Your task to perform on an android device: Add asus zenbook to the cart on ebay Image 0: 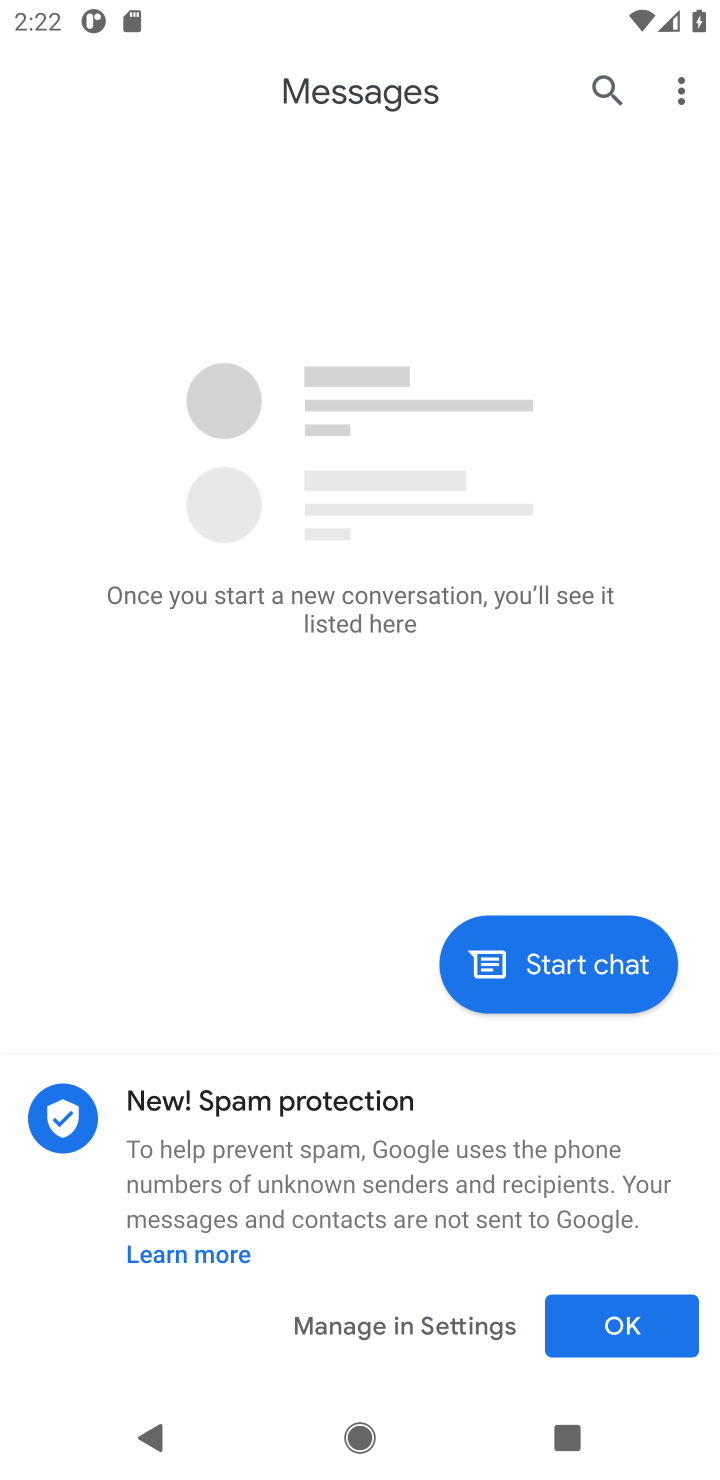
Step 0: press home button
Your task to perform on an android device: Add asus zenbook to the cart on ebay Image 1: 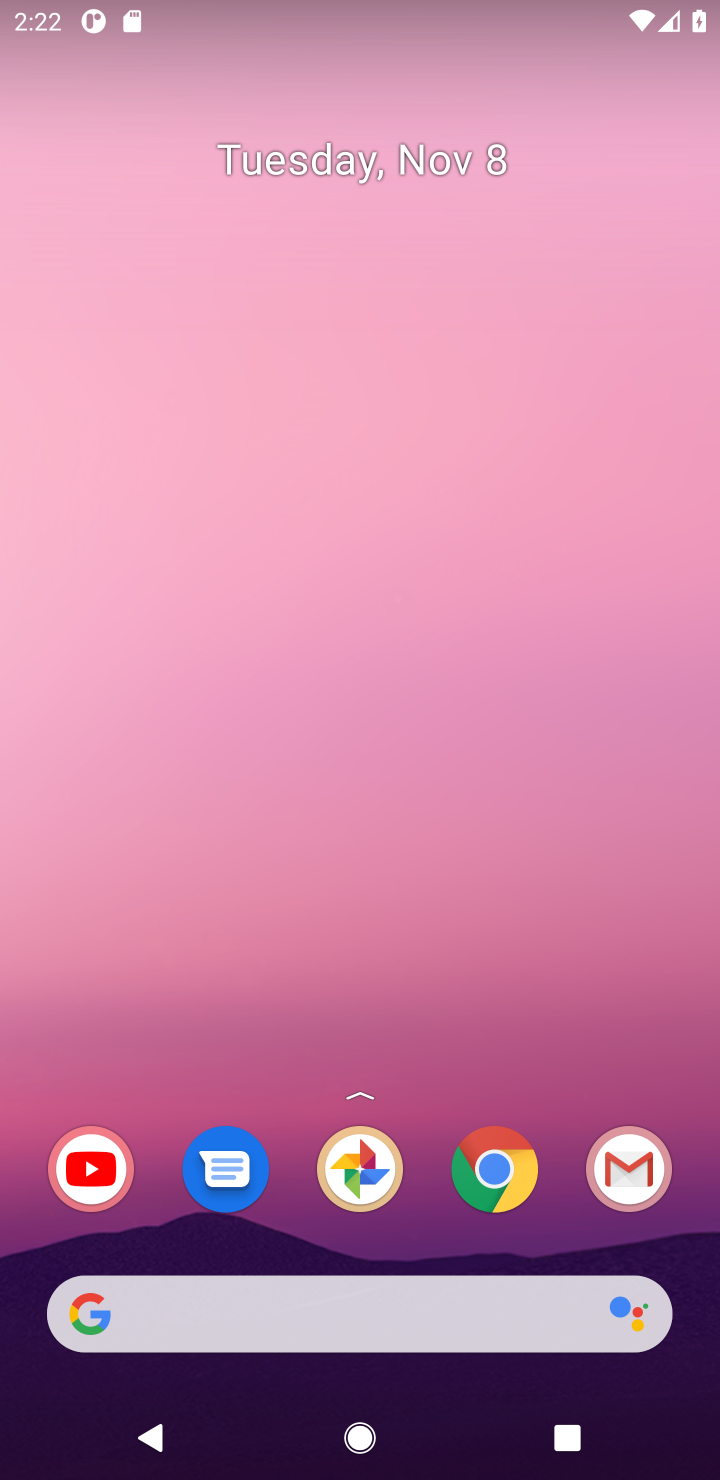
Step 1: click (457, 1192)
Your task to perform on an android device: Add asus zenbook to the cart on ebay Image 2: 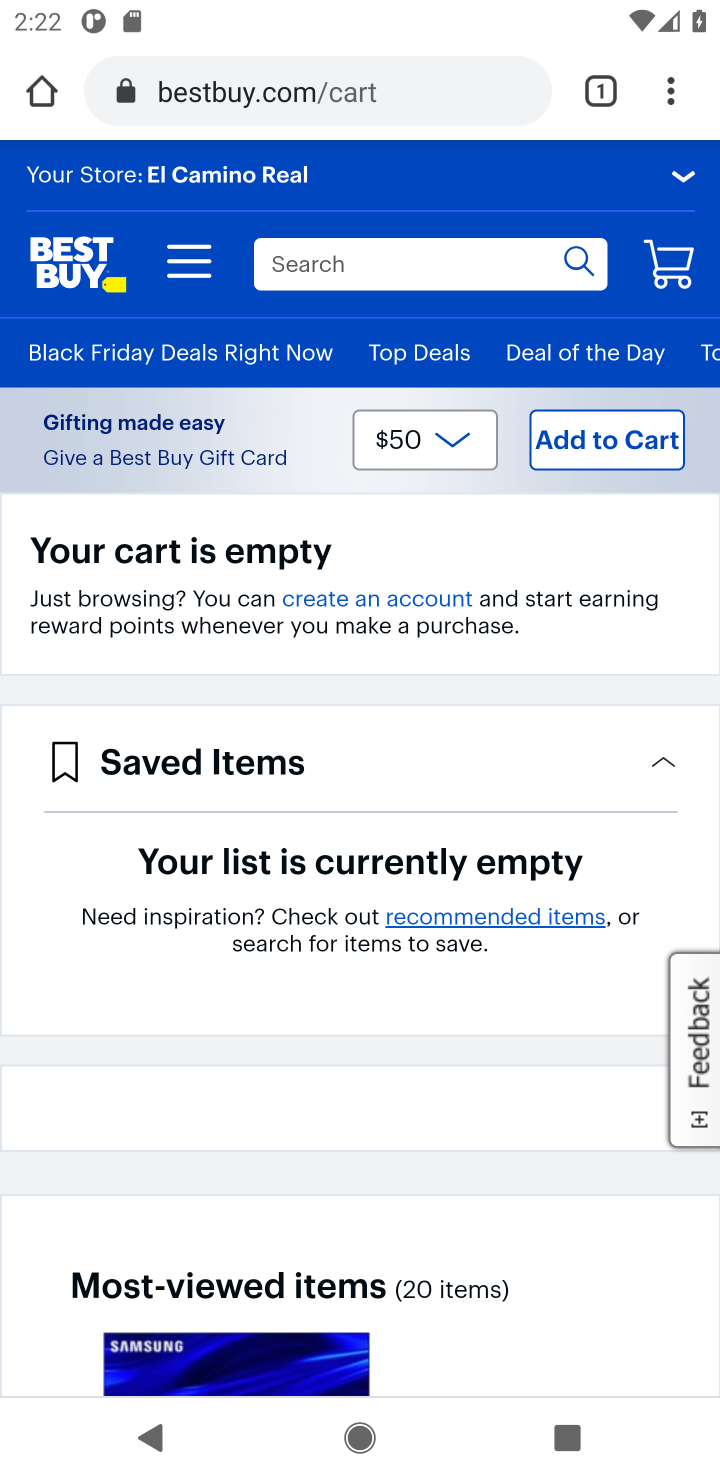
Step 2: click (390, 76)
Your task to perform on an android device: Add asus zenbook to the cart on ebay Image 3: 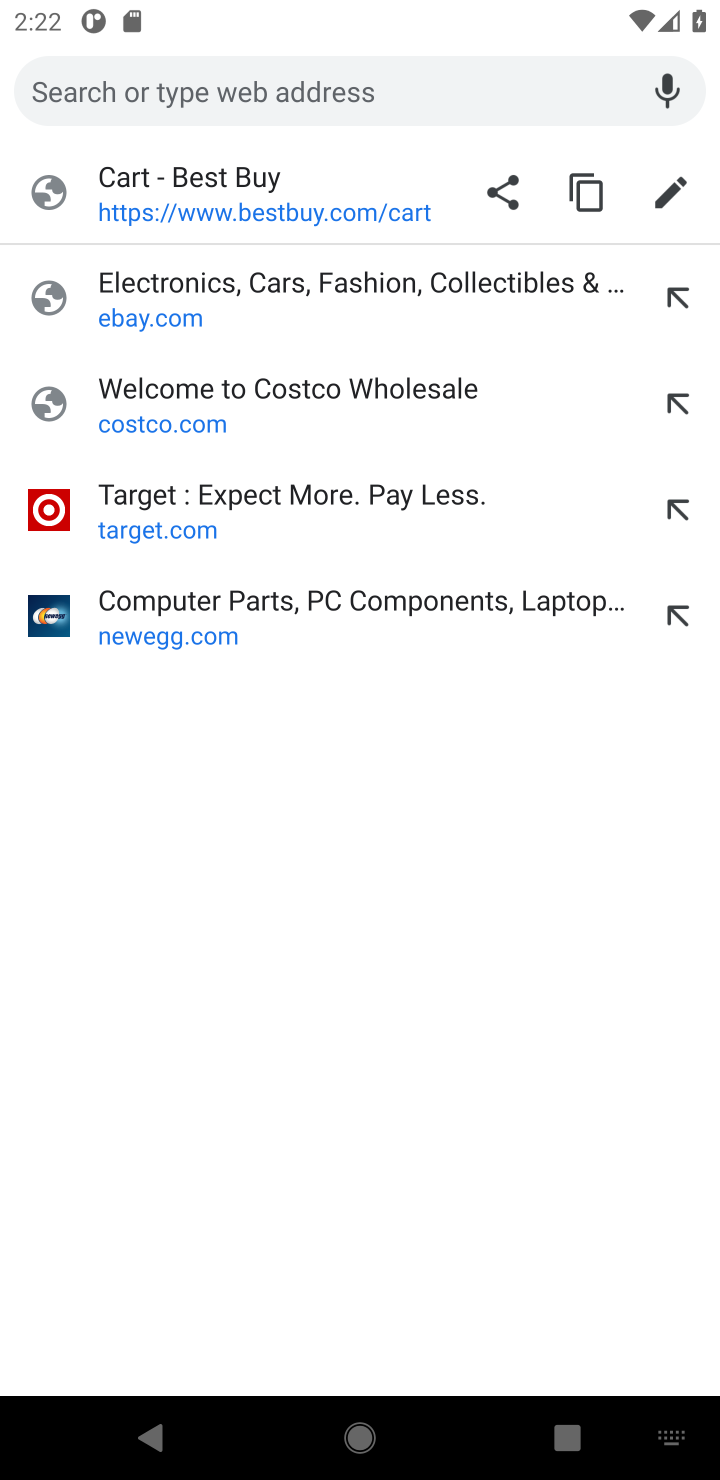
Step 3: type "ebay.com"
Your task to perform on an android device: Add asus zenbook to the cart on ebay Image 4: 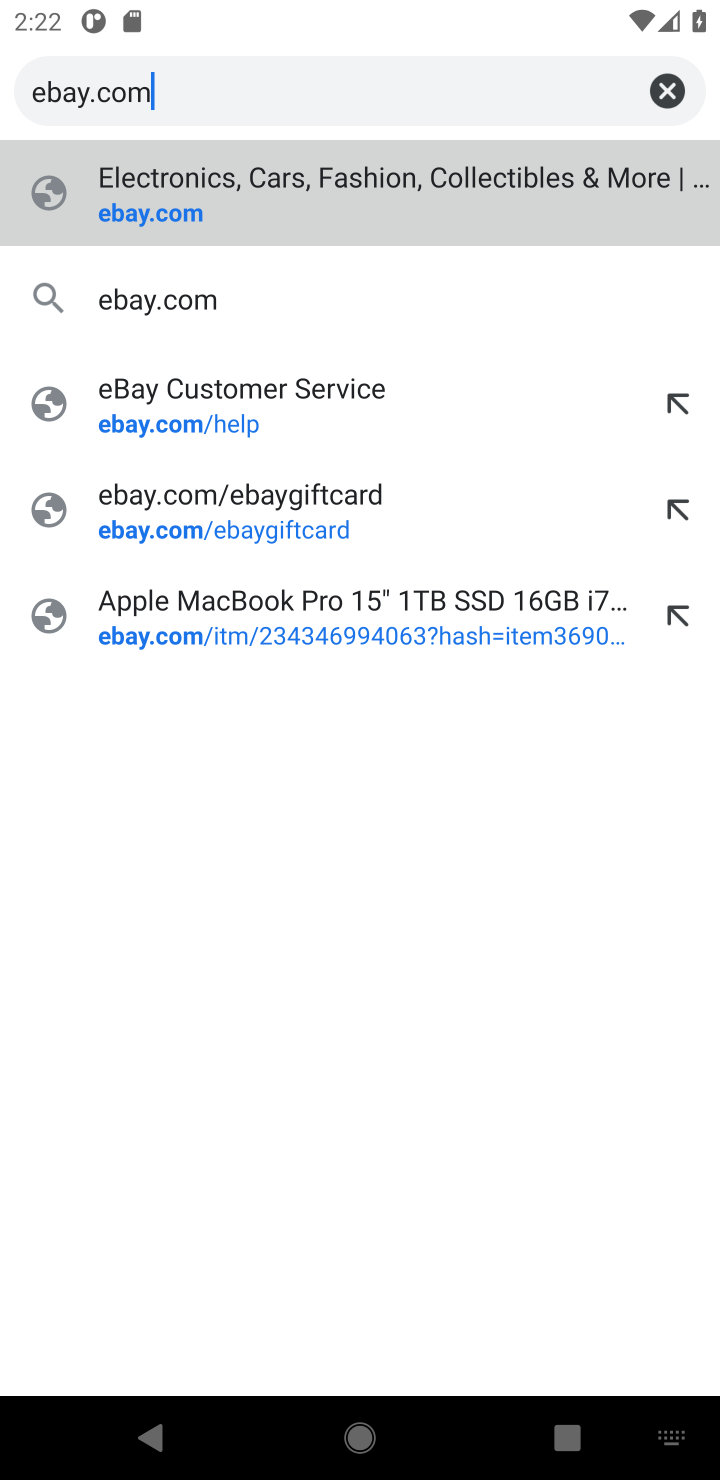
Step 4: click (610, 170)
Your task to perform on an android device: Add asus zenbook to the cart on ebay Image 5: 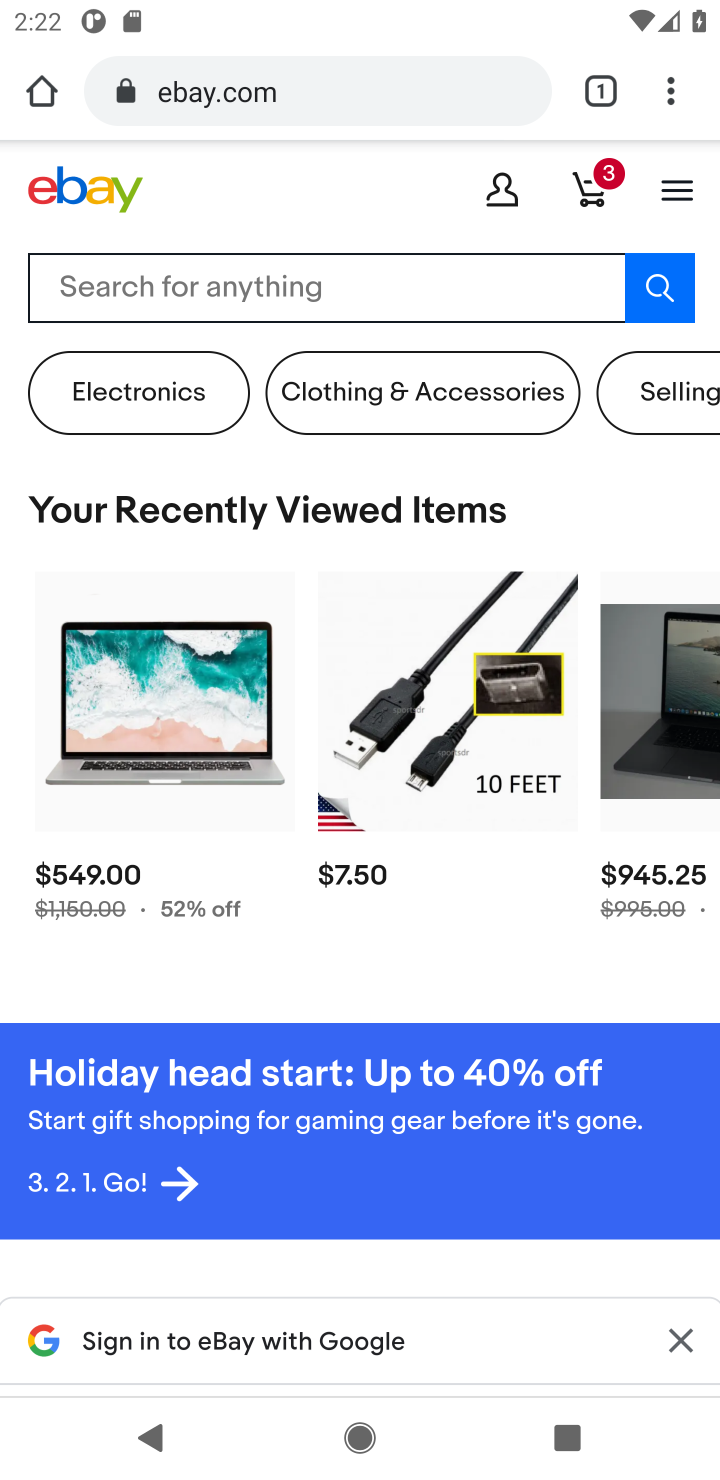
Step 5: click (466, 168)
Your task to perform on an android device: Add asus zenbook to the cart on ebay Image 6: 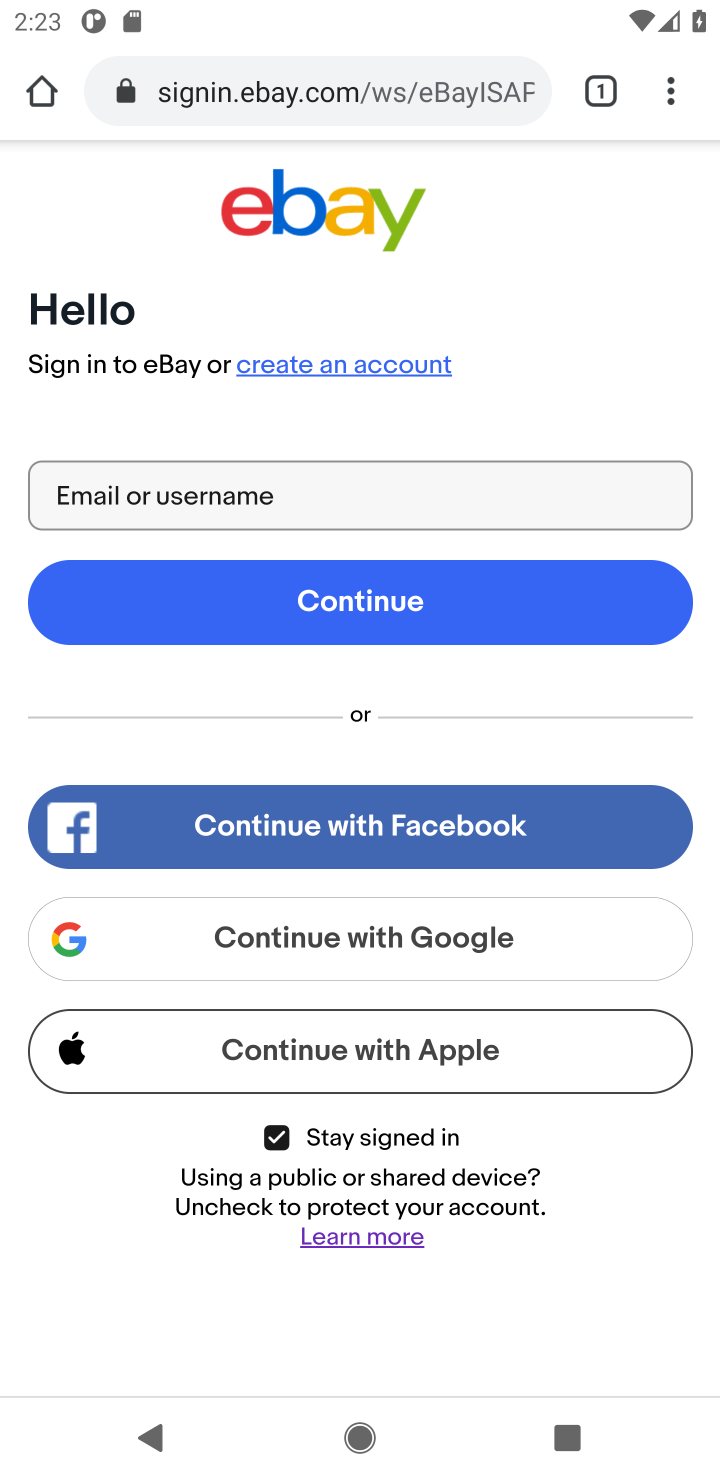
Step 6: click (308, 217)
Your task to perform on an android device: Add asus zenbook to the cart on ebay Image 7: 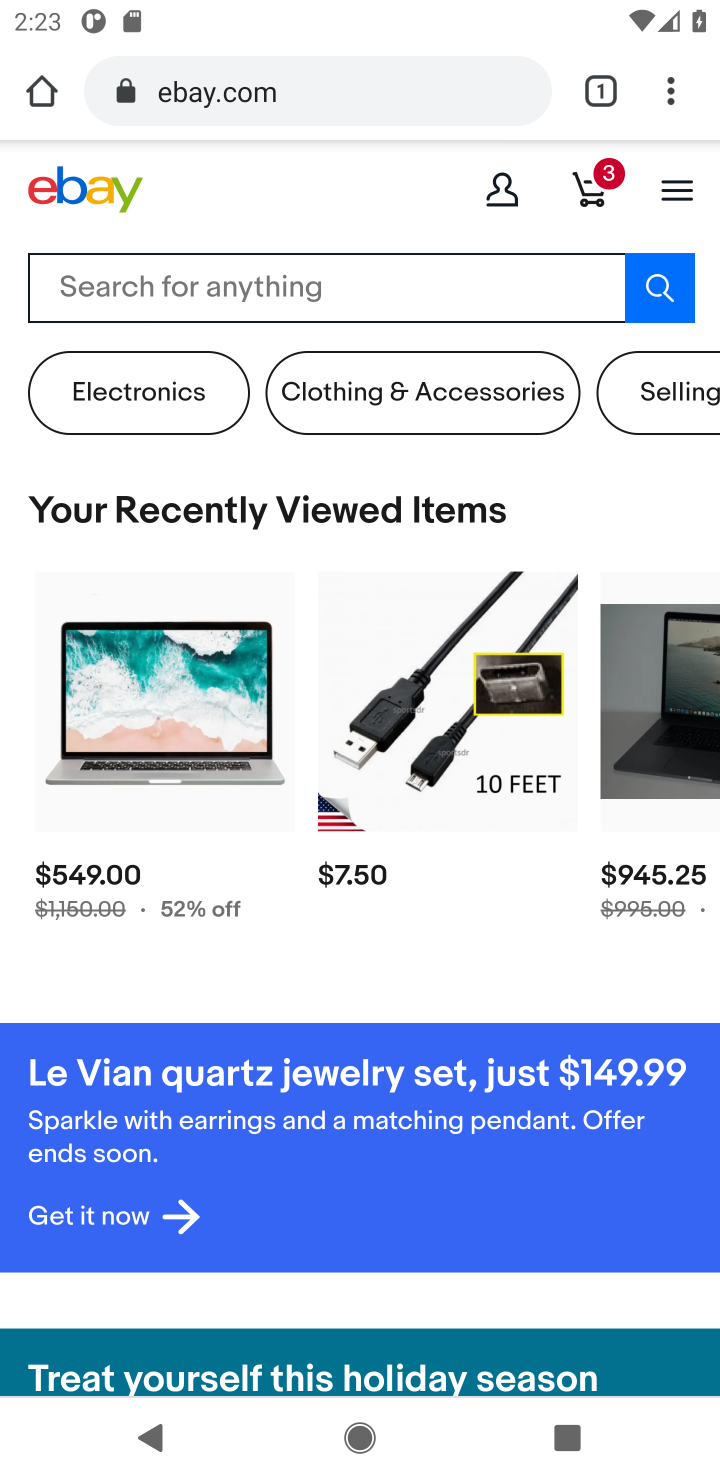
Step 7: click (276, 278)
Your task to perform on an android device: Add asus zenbook to the cart on ebay Image 8: 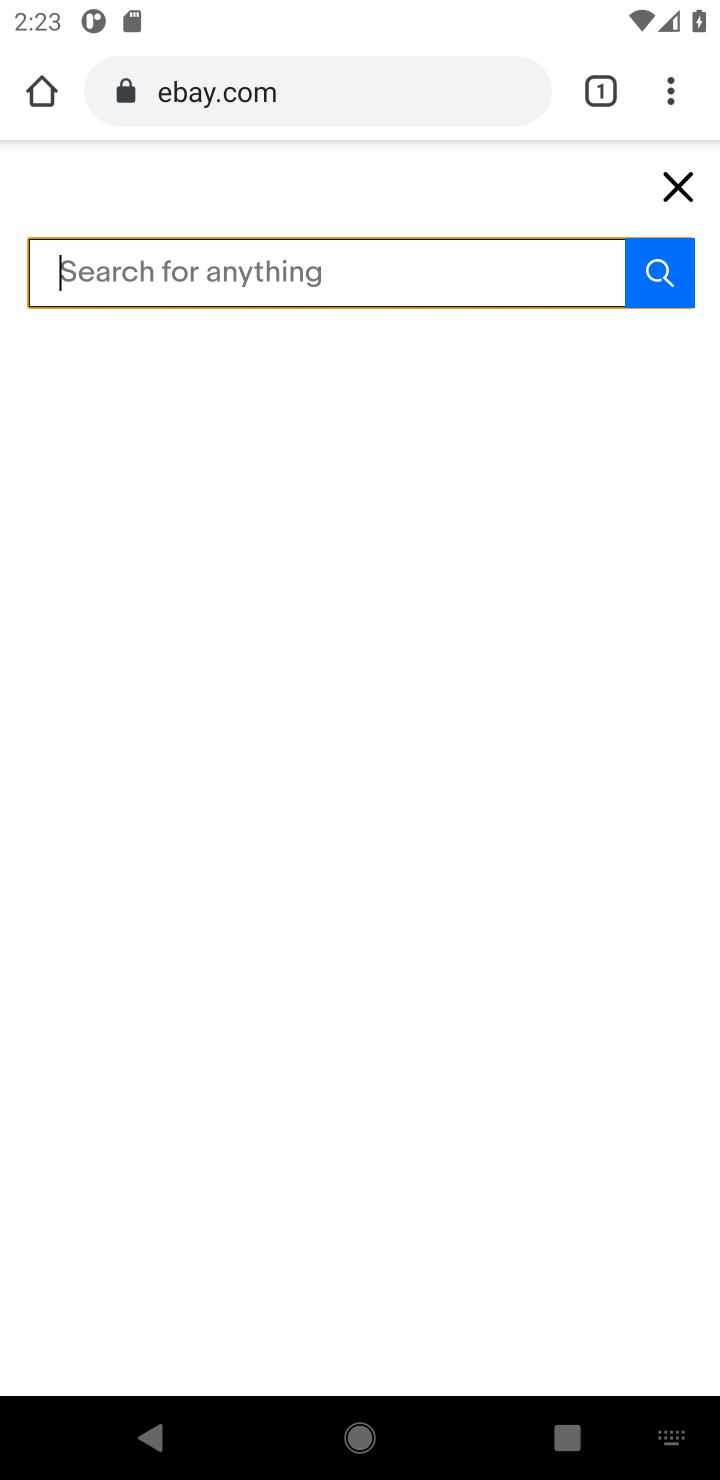
Step 8: type "asus zenbook"
Your task to perform on an android device: Add asus zenbook to the cart on ebay Image 9: 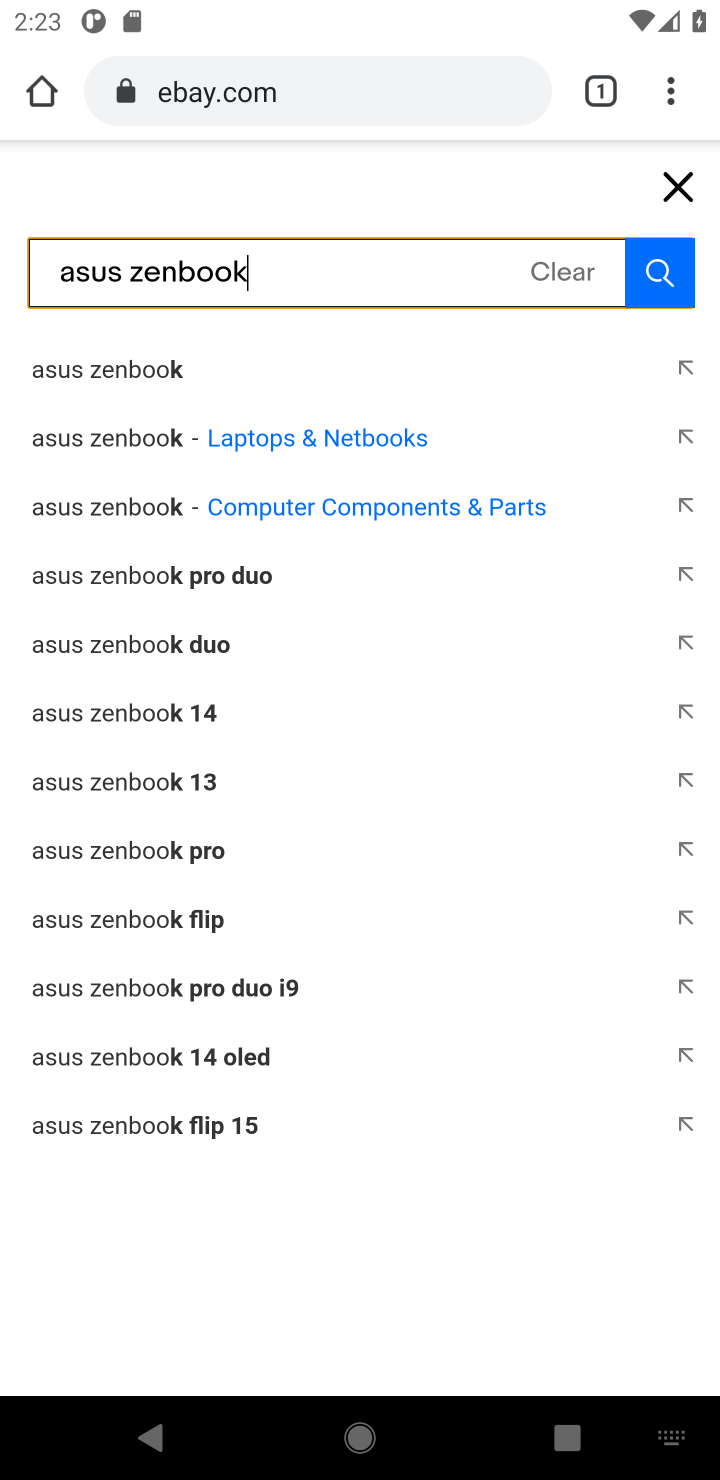
Step 9: click (207, 350)
Your task to perform on an android device: Add asus zenbook to the cart on ebay Image 10: 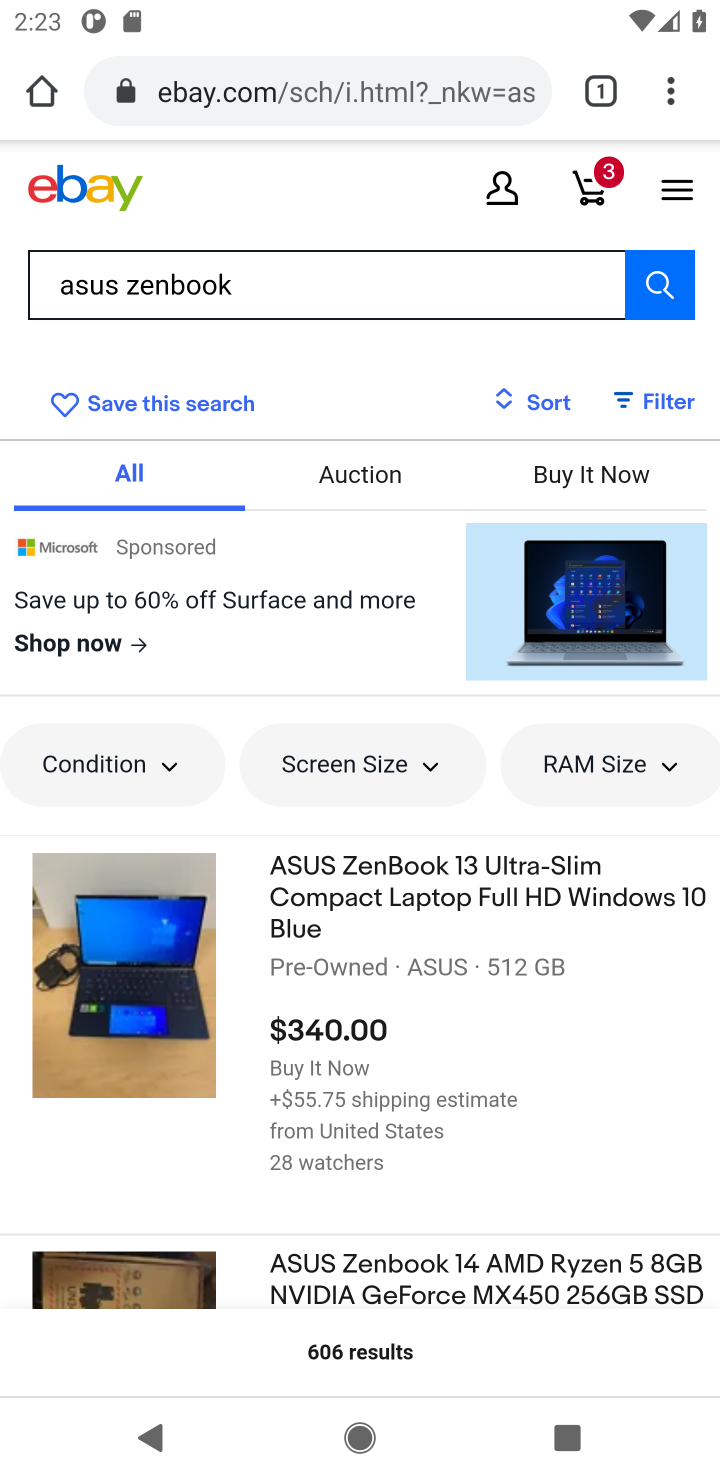
Step 10: click (343, 880)
Your task to perform on an android device: Add asus zenbook to the cart on ebay Image 11: 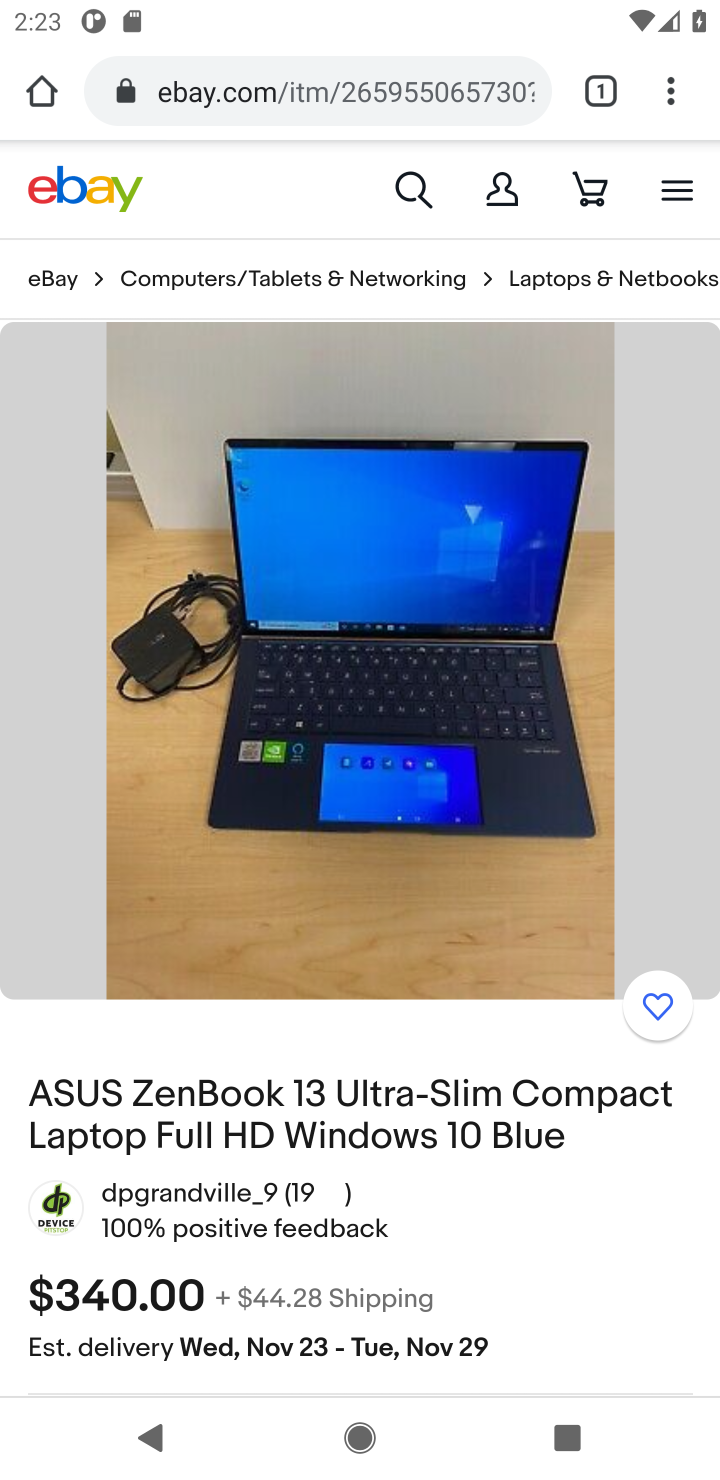
Step 11: drag from (340, 638) to (248, 339)
Your task to perform on an android device: Add asus zenbook to the cart on ebay Image 12: 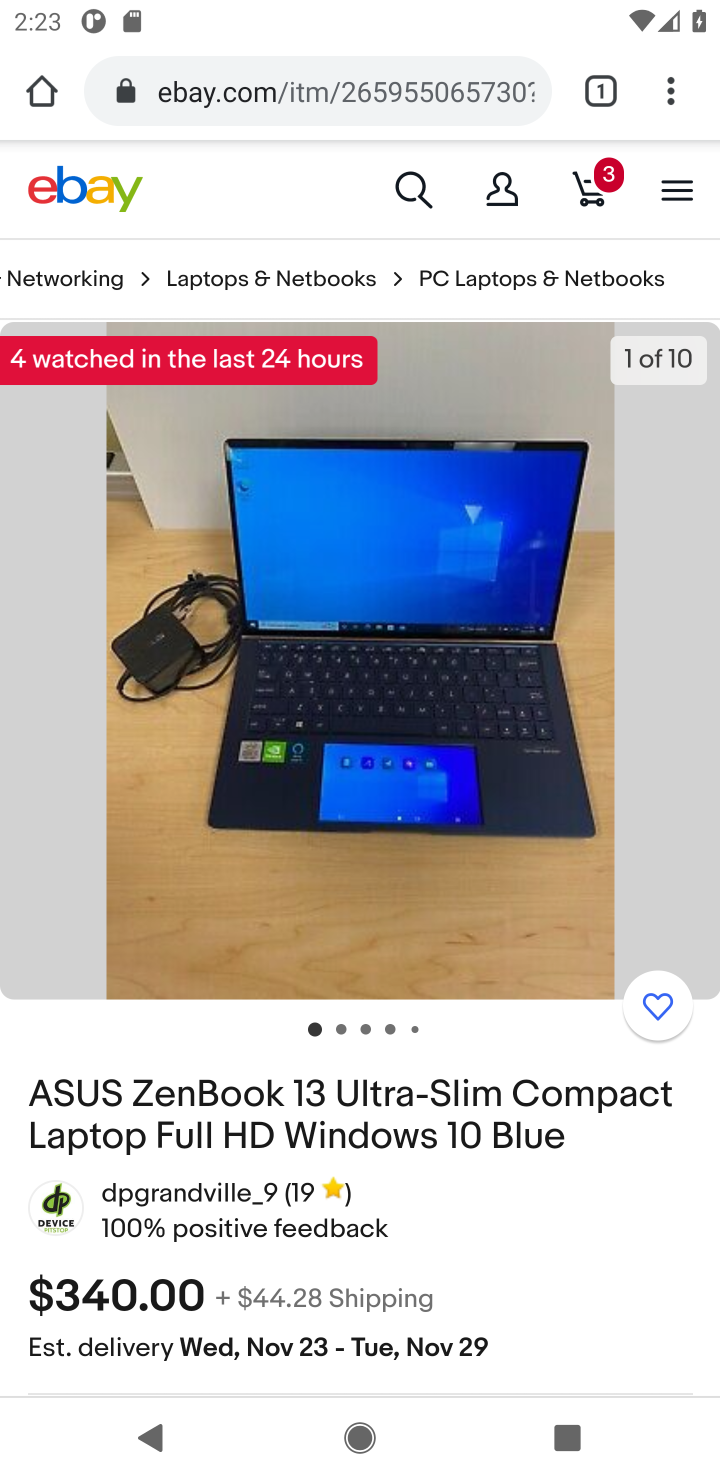
Step 12: drag from (409, 1078) to (352, 465)
Your task to perform on an android device: Add asus zenbook to the cart on ebay Image 13: 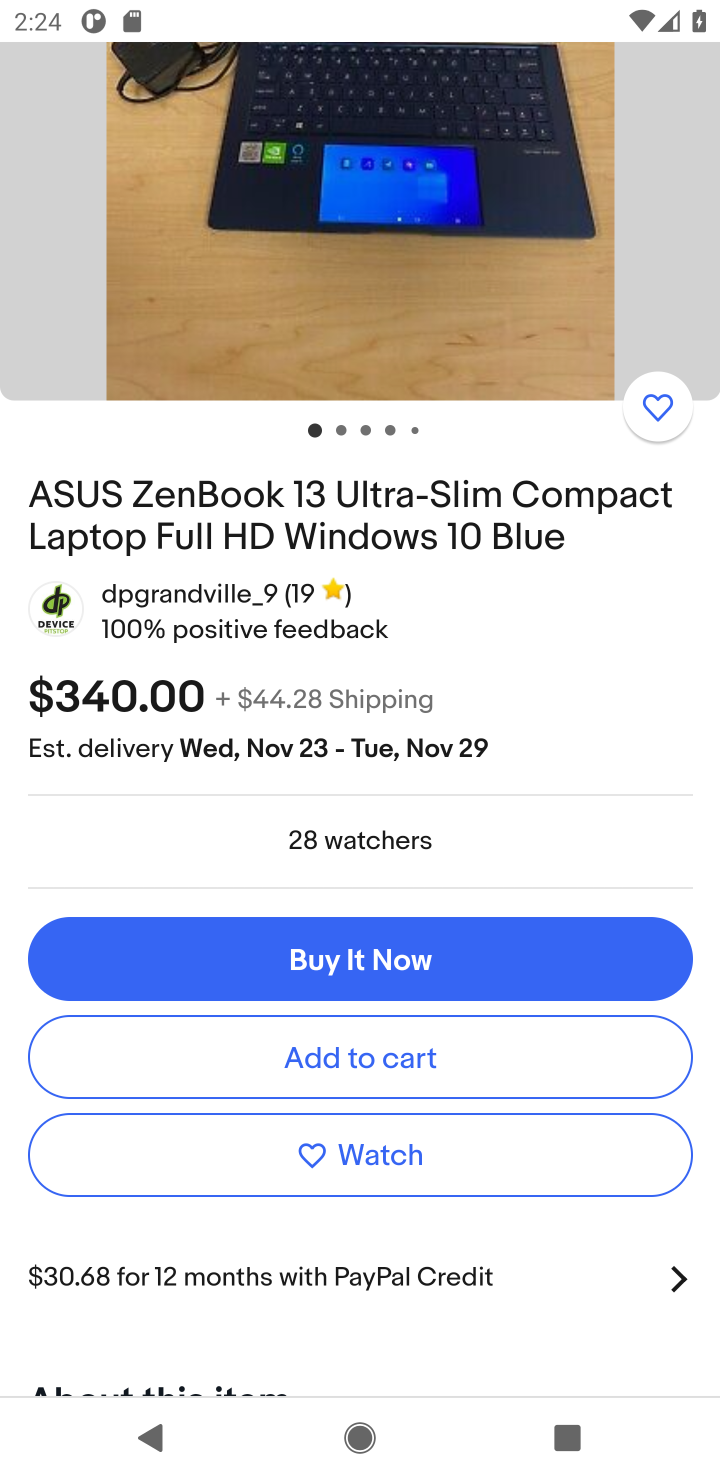
Step 13: click (392, 1050)
Your task to perform on an android device: Add asus zenbook to the cart on ebay Image 14: 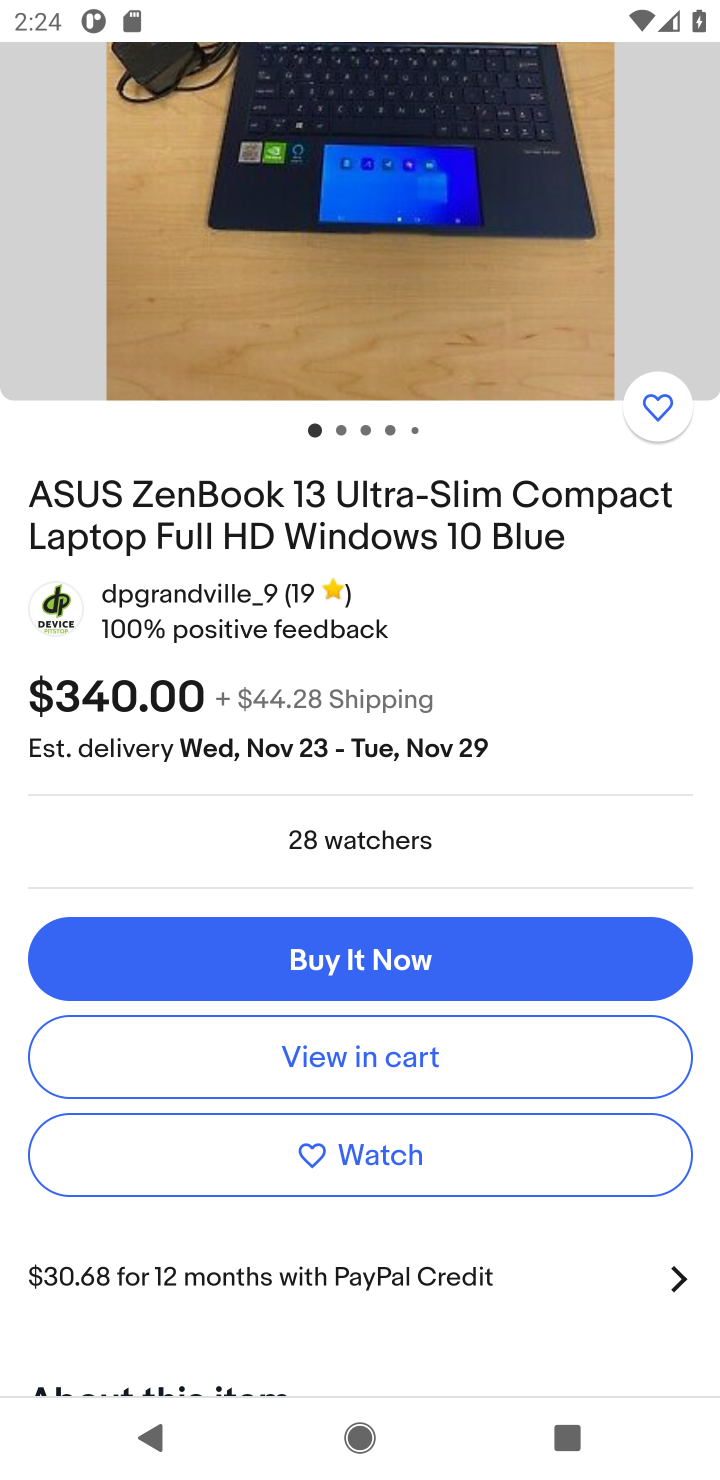
Step 14: task complete